Your task to perform on an android device: Open Chrome and go to settings Image 0: 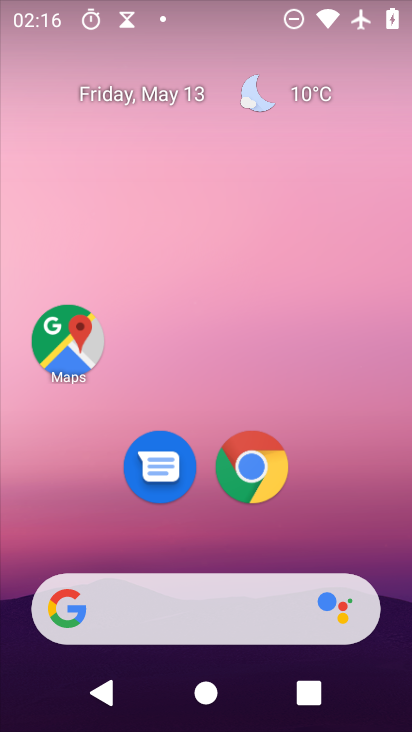
Step 0: click (276, 458)
Your task to perform on an android device: Open Chrome and go to settings Image 1: 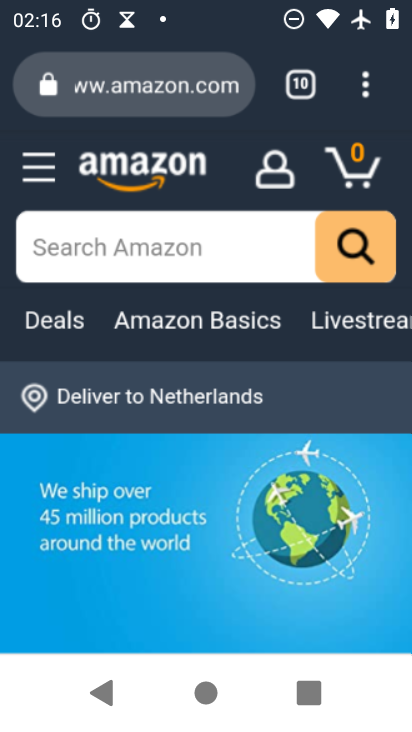
Step 1: click (348, 87)
Your task to perform on an android device: Open Chrome and go to settings Image 2: 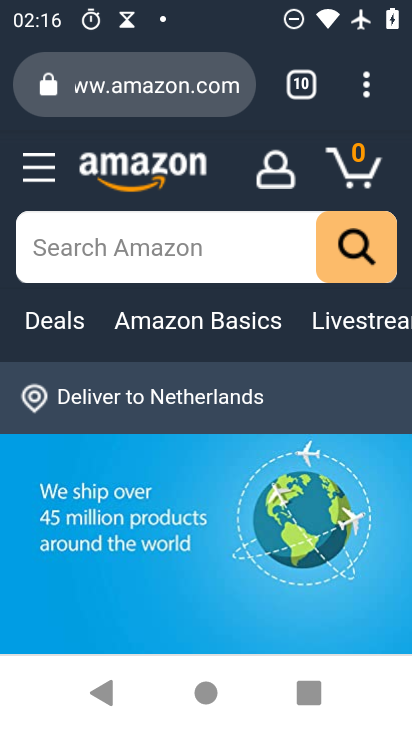
Step 2: click (364, 92)
Your task to perform on an android device: Open Chrome and go to settings Image 3: 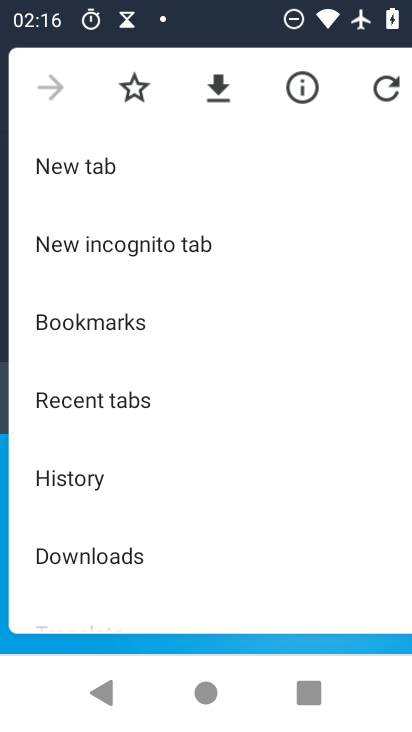
Step 3: drag from (210, 415) to (194, 142)
Your task to perform on an android device: Open Chrome and go to settings Image 4: 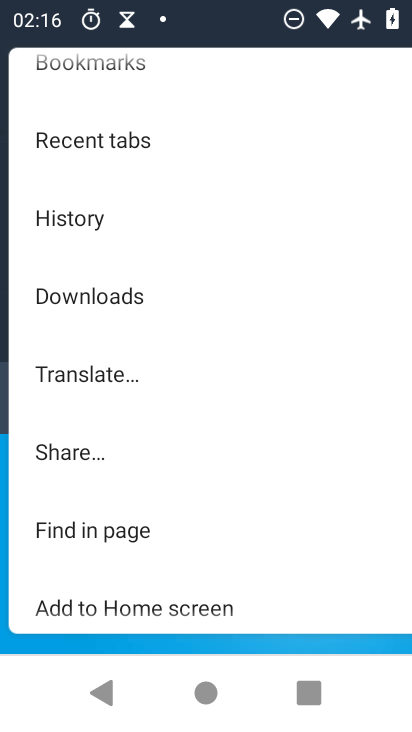
Step 4: drag from (170, 527) to (191, 172)
Your task to perform on an android device: Open Chrome and go to settings Image 5: 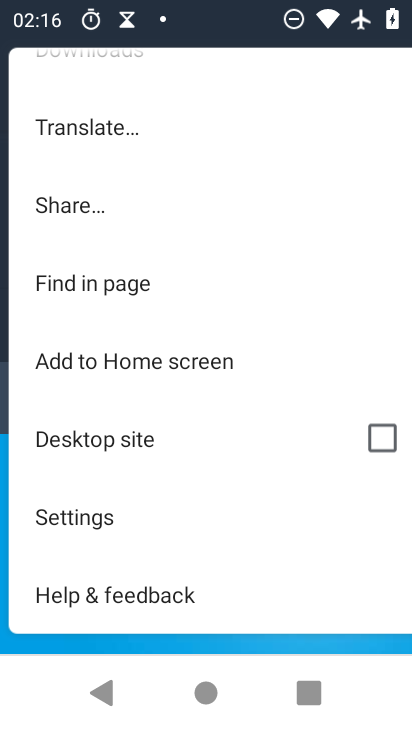
Step 5: click (108, 507)
Your task to perform on an android device: Open Chrome and go to settings Image 6: 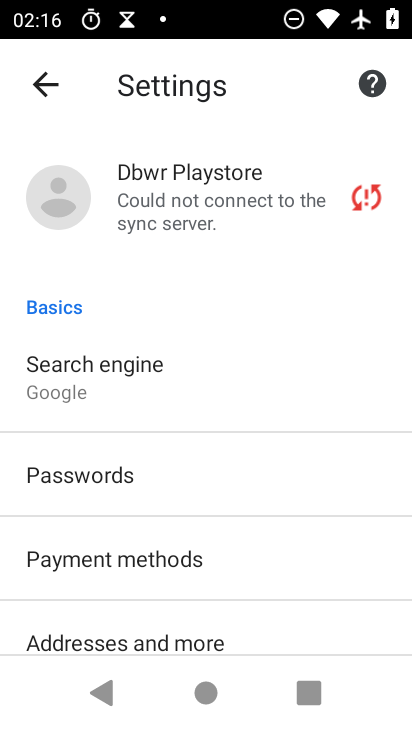
Step 6: task complete